Your task to perform on an android device: Search for sushi restaurants on Maps Image 0: 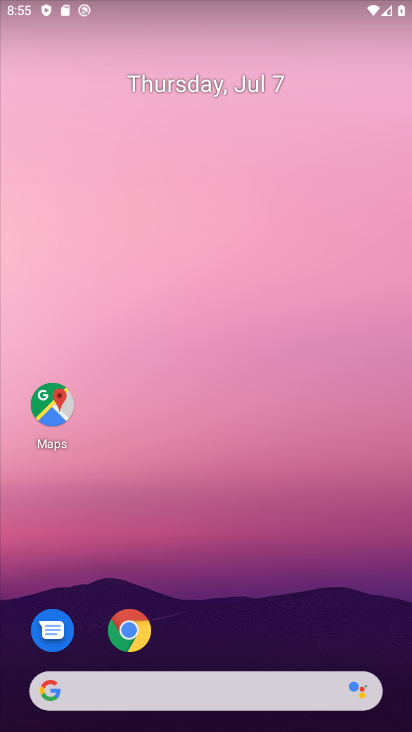
Step 0: drag from (291, 617) to (287, 64)
Your task to perform on an android device: Search for sushi restaurants on Maps Image 1: 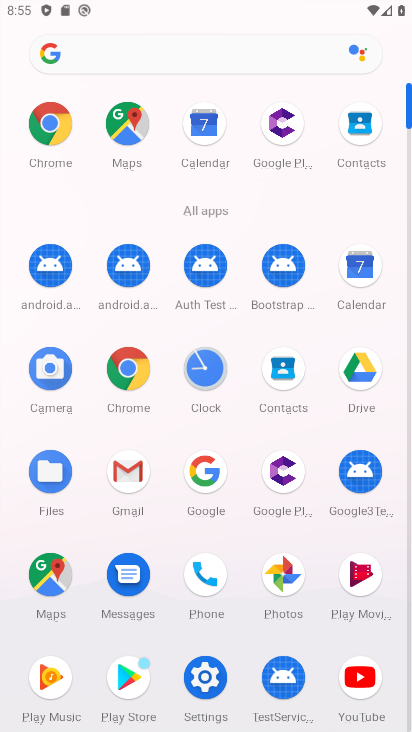
Step 1: click (115, 107)
Your task to perform on an android device: Search for sushi restaurants on Maps Image 2: 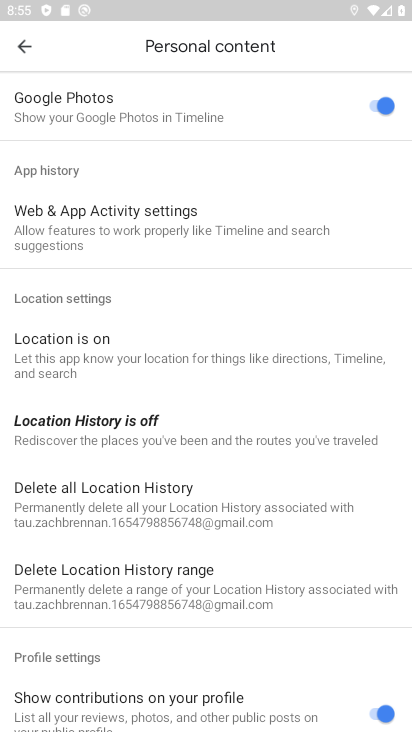
Step 2: click (22, 51)
Your task to perform on an android device: Search for sushi restaurants on Maps Image 3: 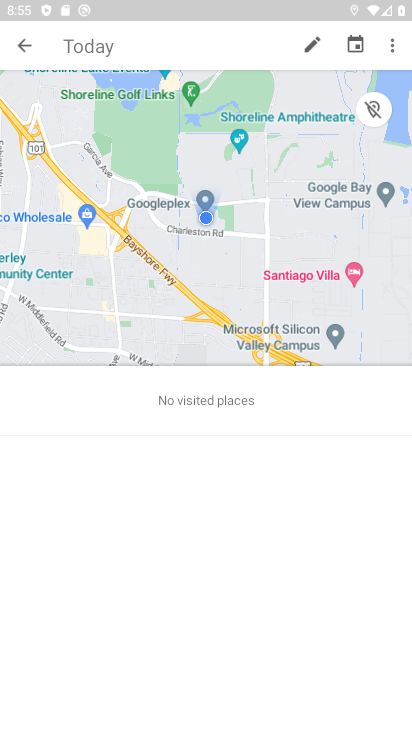
Step 3: click (22, 40)
Your task to perform on an android device: Search for sushi restaurants on Maps Image 4: 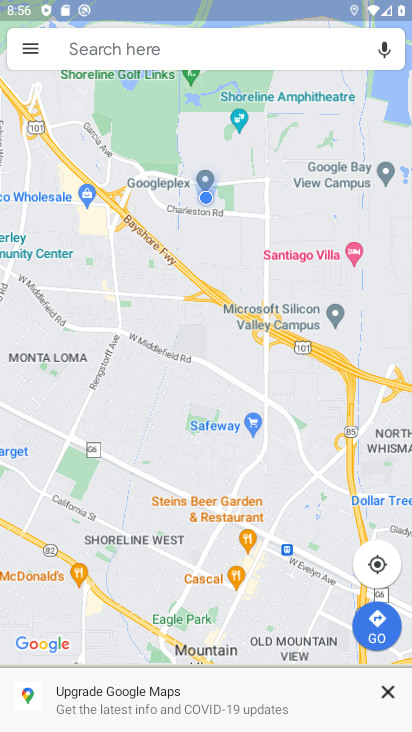
Step 4: click (270, 50)
Your task to perform on an android device: Search for sushi restaurants on Maps Image 5: 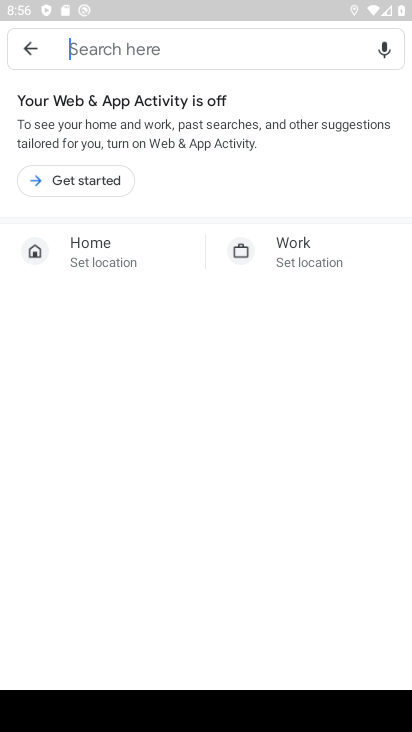
Step 5: type "sushi restaurants"
Your task to perform on an android device: Search for sushi restaurants on Maps Image 6: 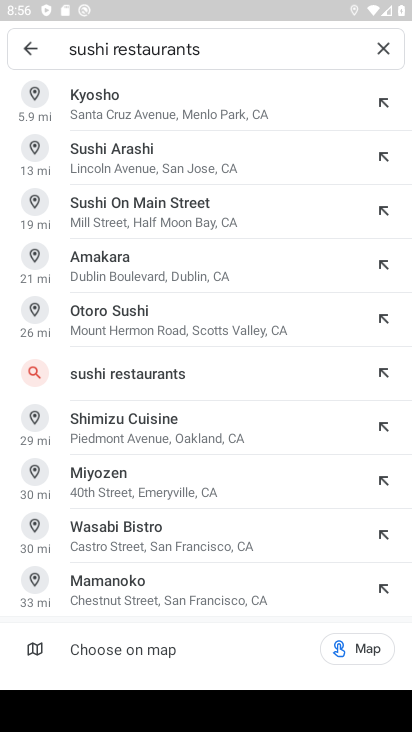
Step 6: click (113, 376)
Your task to perform on an android device: Search for sushi restaurants on Maps Image 7: 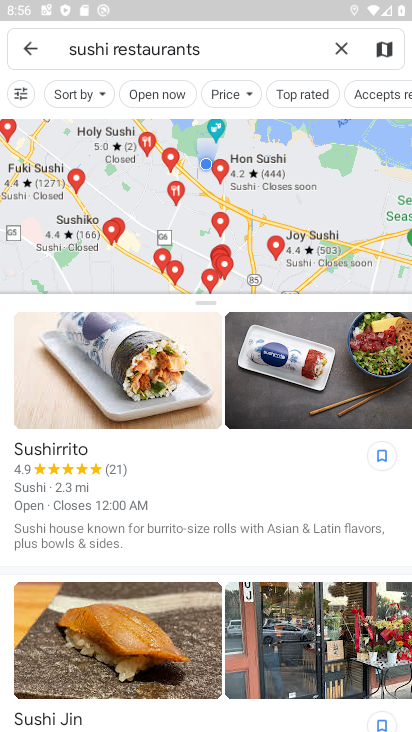
Step 7: task complete